Your task to perform on an android device: Open internet settings Image 0: 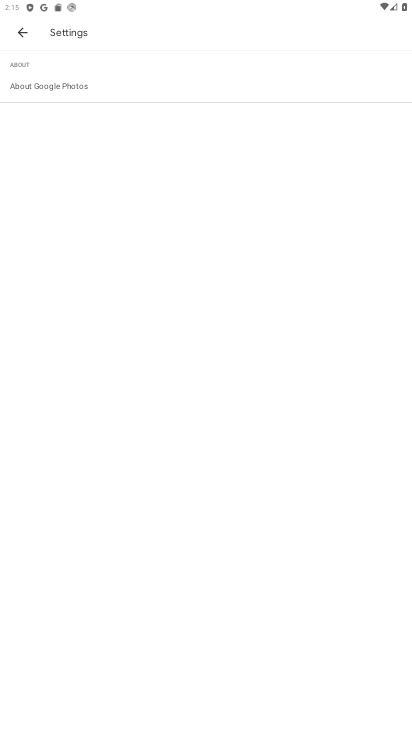
Step 0: press home button
Your task to perform on an android device: Open internet settings Image 1: 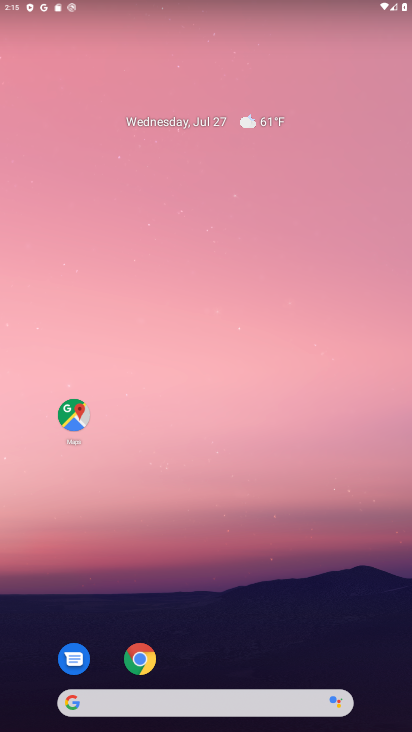
Step 1: drag from (195, 685) to (192, 177)
Your task to perform on an android device: Open internet settings Image 2: 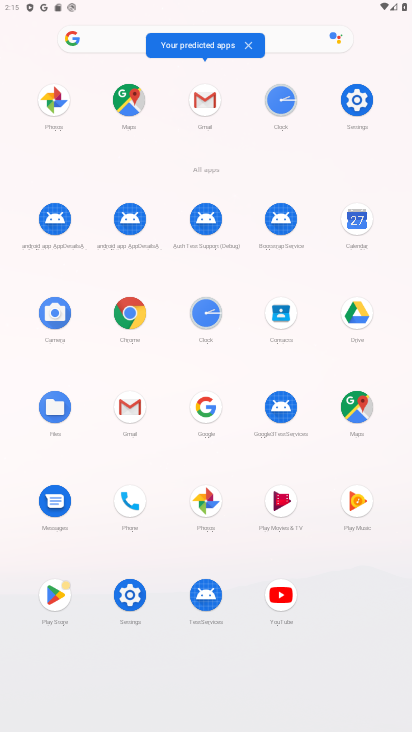
Step 2: click (361, 98)
Your task to perform on an android device: Open internet settings Image 3: 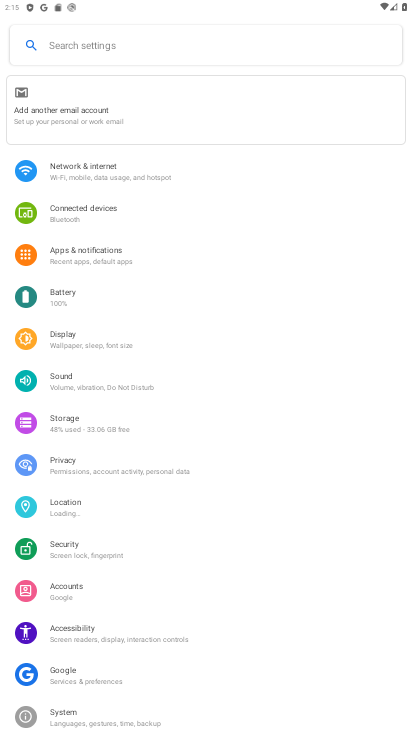
Step 3: click (92, 165)
Your task to perform on an android device: Open internet settings Image 4: 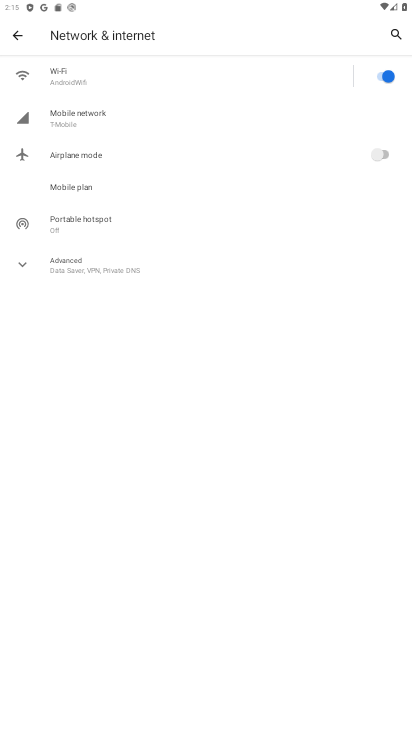
Step 4: click (81, 263)
Your task to perform on an android device: Open internet settings Image 5: 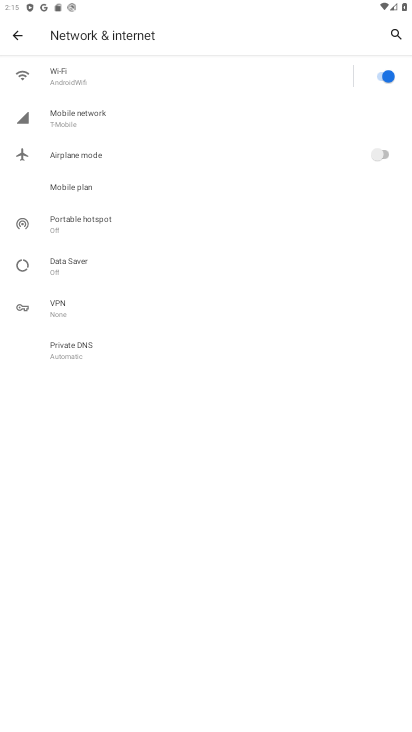
Step 5: click (51, 118)
Your task to perform on an android device: Open internet settings Image 6: 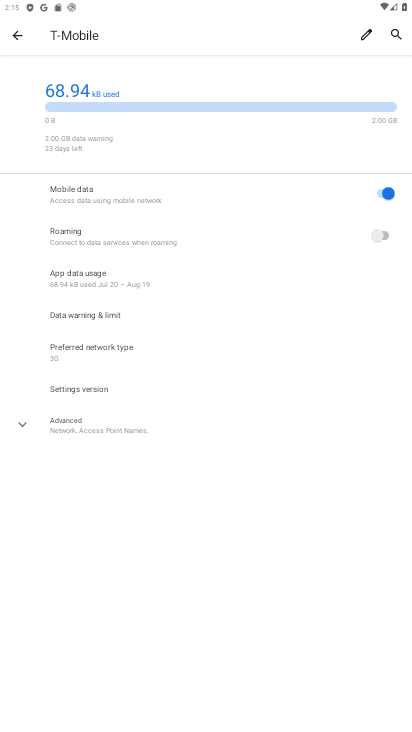
Step 6: click (81, 429)
Your task to perform on an android device: Open internet settings Image 7: 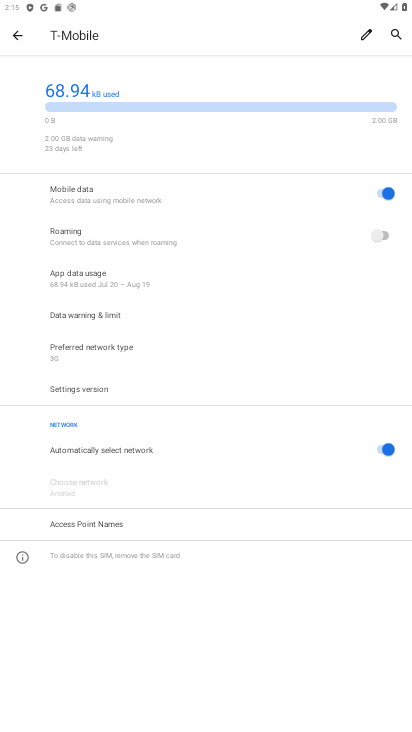
Step 7: task complete